Your task to perform on an android device: Open Youtube and go to the subscriptions tab Image 0: 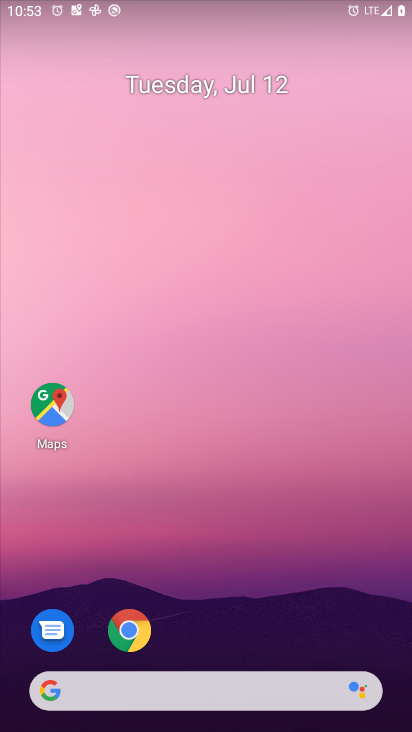
Step 0: press home button
Your task to perform on an android device: Open Youtube and go to the subscriptions tab Image 1: 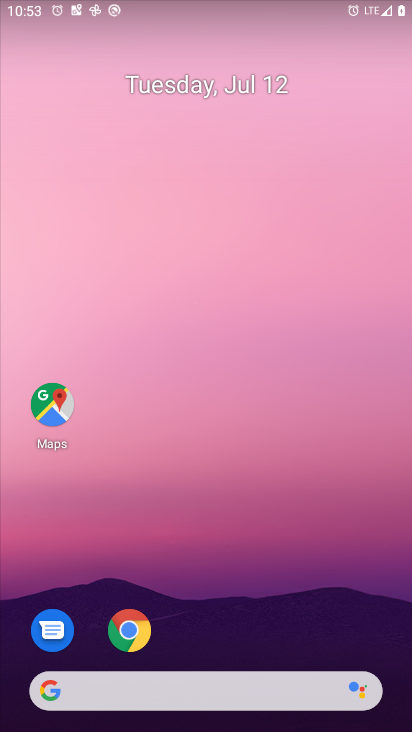
Step 1: drag from (293, 602) to (257, 144)
Your task to perform on an android device: Open Youtube and go to the subscriptions tab Image 2: 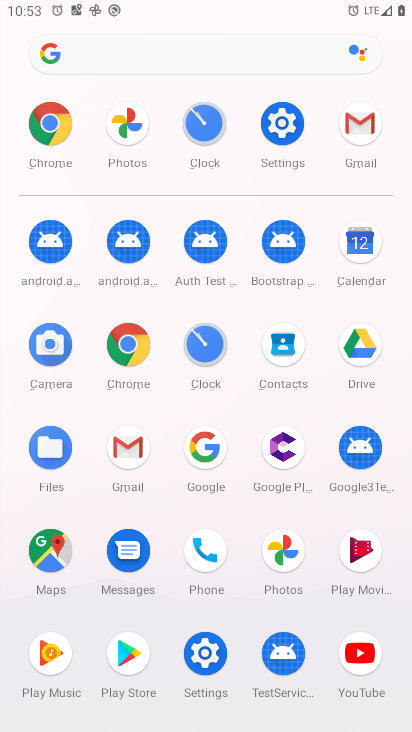
Step 2: click (365, 668)
Your task to perform on an android device: Open Youtube and go to the subscriptions tab Image 3: 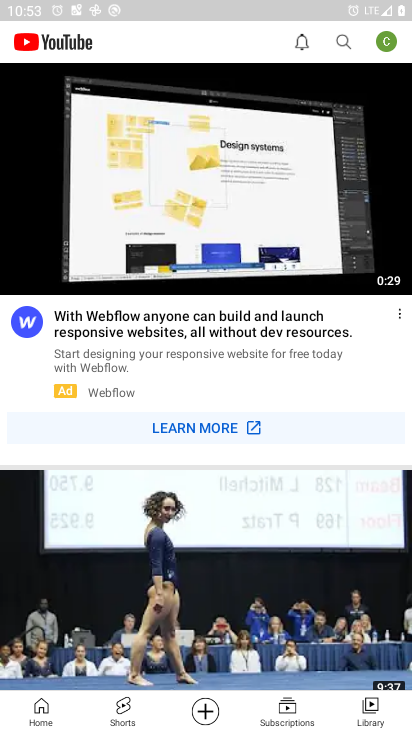
Step 3: click (279, 709)
Your task to perform on an android device: Open Youtube and go to the subscriptions tab Image 4: 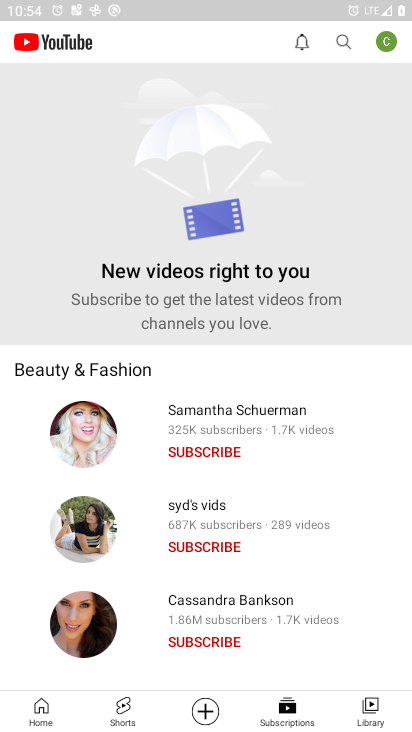
Step 4: task complete